Your task to perform on an android device: turn off data saver in the chrome app Image 0: 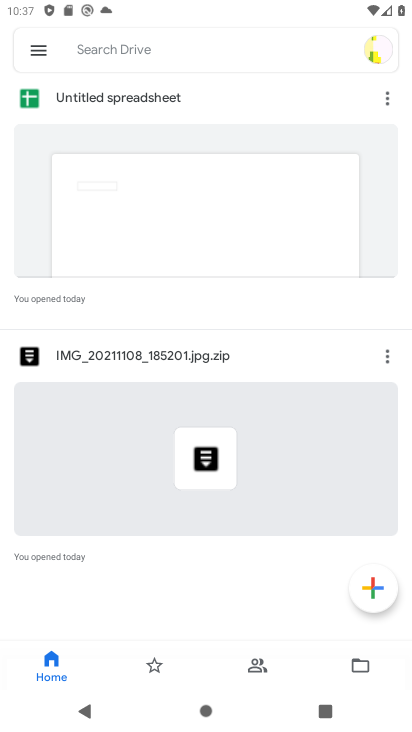
Step 0: press home button
Your task to perform on an android device: turn off data saver in the chrome app Image 1: 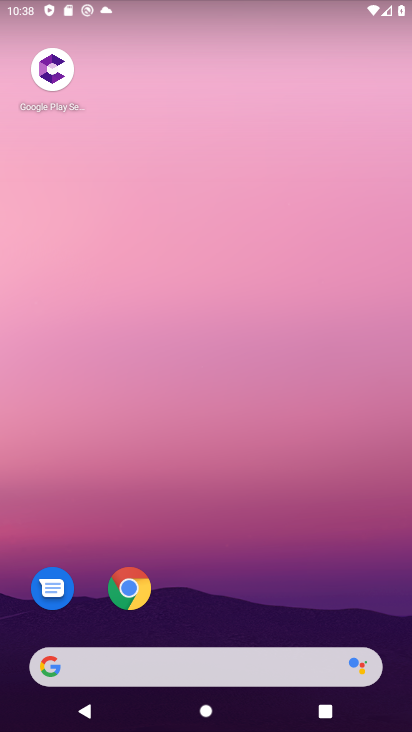
Step 1: drag from (279, 604) to (252, 138)
Your task to perform on an android device: turn off data saver in the chrome app Image 2: 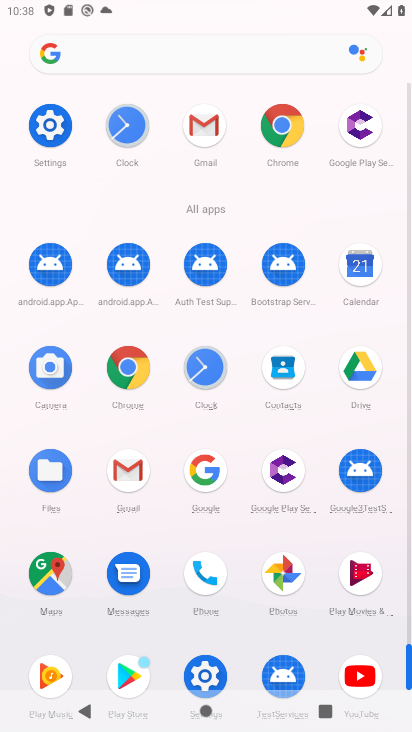
Step 2: click (132, 366)
Your task to perform on an android device: turn off data saver in the chrome app Image 3: 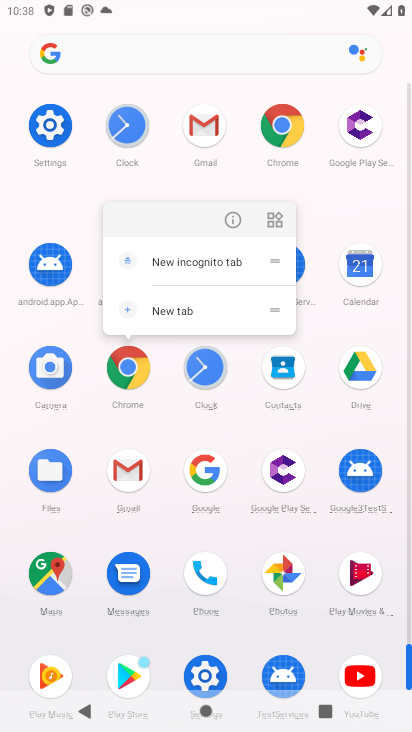
Step 3: click (127, 385)
Your task to perform on an android device: turn off data saver in the chrome app Image 4: 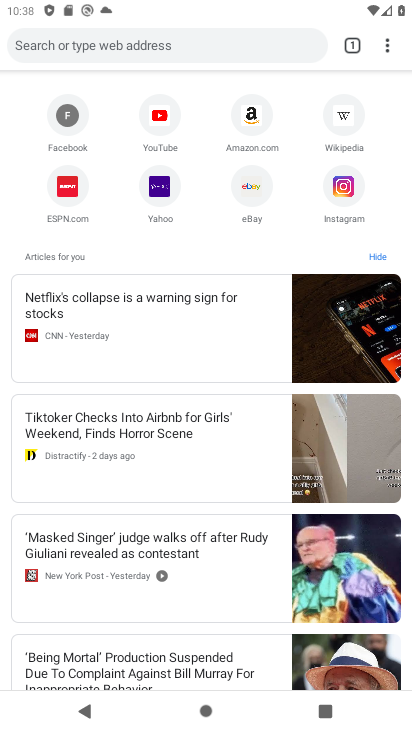
Step 4: click (382, 54)
Your task to perform on an android device: turn off data saver in the chrome app Image 5: 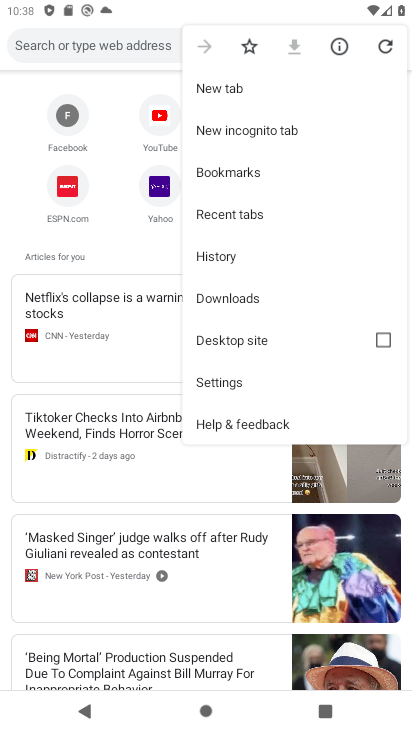
Step 5: click (253, 384)
Your task to perform on an android device: turn off data saver in the chrome app Image 6: 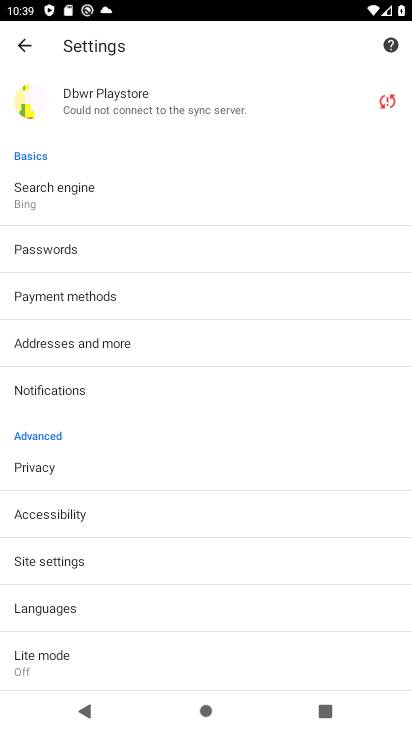
Step 6: click (80, 670)
Your task to perform on an android device: turn off data saver in the chrome app Image 7: 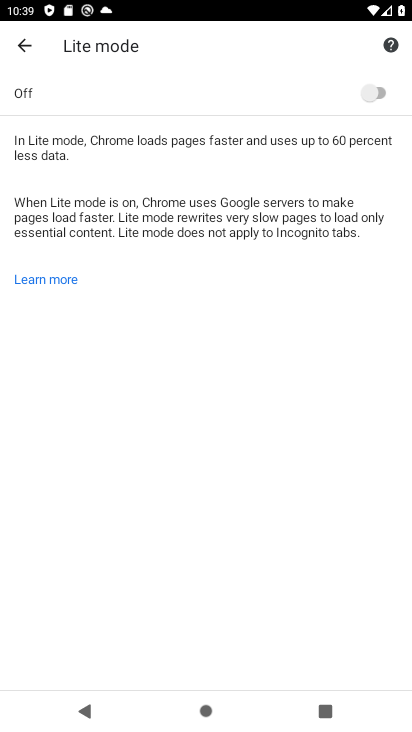
Step 7: task complete